Your task to perform on an android device: How do I get to the nearest Sprint Store? Image 0: 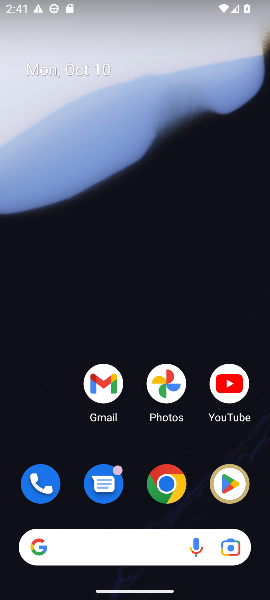
Step 0: click (177, 479)
Your task to perform on an android device: How do I get to the nearest Sprint Store? Image 1: 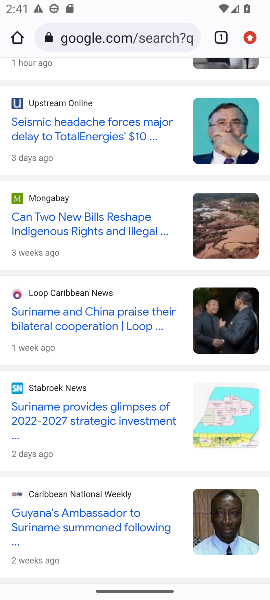
Step 1: drag from (158, 77) to (167, 383)
Your task to perform on an android device: How do I get to the nearest Sprint Store? Image 2: 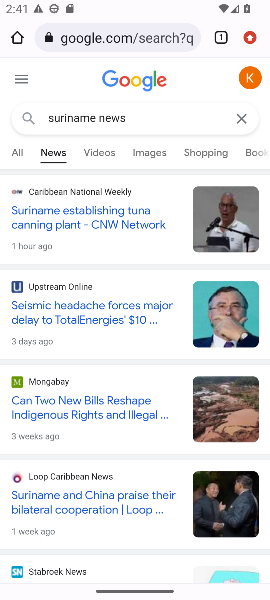
Step 2: click (110, 35)
Your task to perform on an android device: How do I get to the nearest Sprint Store? Image 3: 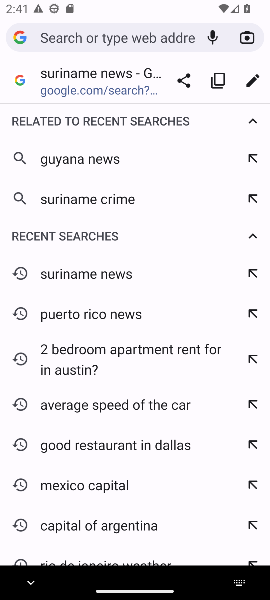
Step 3: type "nearest sprint store"
Your task to perform on an android device: How do I get to the nearest Sprint Store? Image 4: 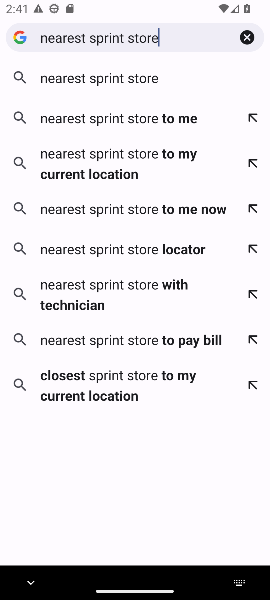
Step 4: click (138, 115)
Your task to perform on an android device: How do I get to the nearest Sprint Store? Image 5: 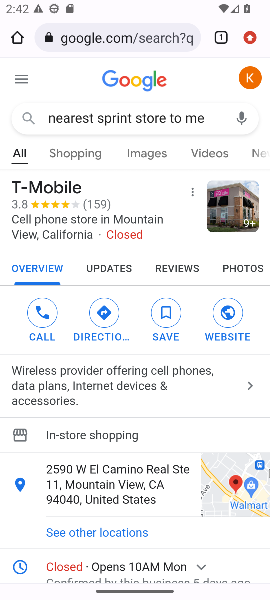
Step 5: task complete